Your task to perform on an android device: turn off priority inbox in the gmail app Image 0: 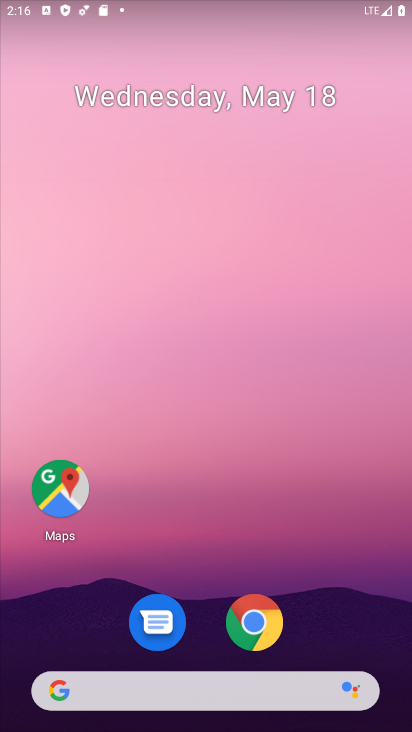
Step 0: drag from (201, 655) to (205, 301)
Your task to perform on an android device: turn off priority inbox in the gmail app Image 1: 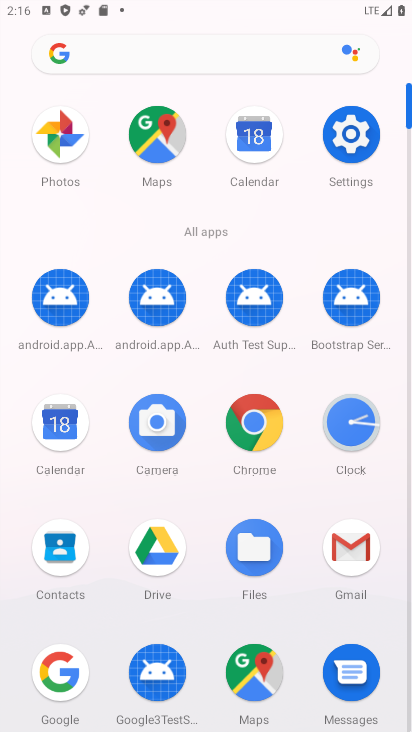
Step 1: click (332, 544)
Your task to perform on an android device: turn off priority inbox in the gmail app Image 2: 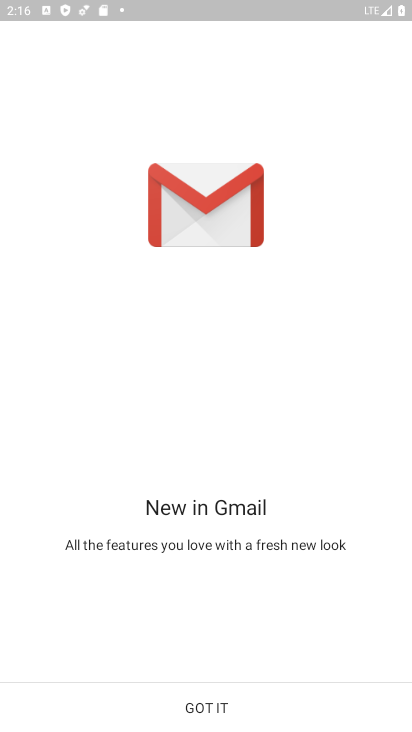
Step 2: click (237, 702)
Your task to perform on an android device: turn off priority inbox in the gmail app Image 3: 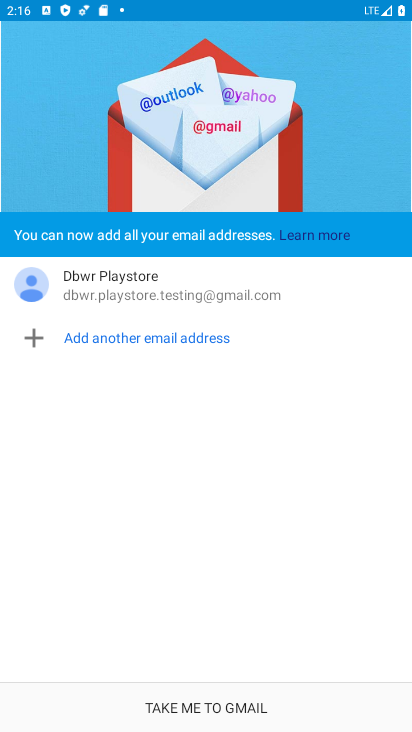
Step 3: click (244, 695)
Your task to perform on an android device: turn off priority inbox in the gmail app Image 4: 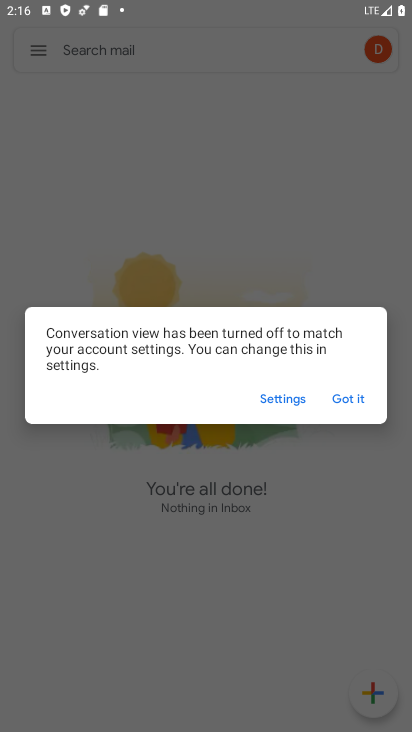
Step 4: click (338, 396)
Your task to perform on an android device: turn off priority inbox in the gmail app Image 5: 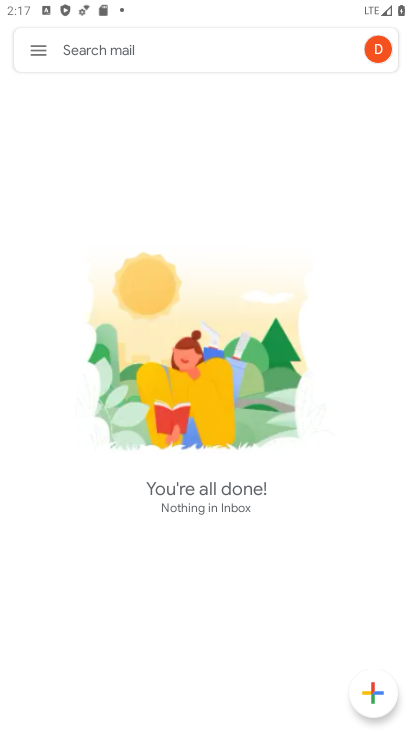
Step 5: click (31, 43)
Your task to perform on an android device: turn off priority inbox in the gmail app Image 6: 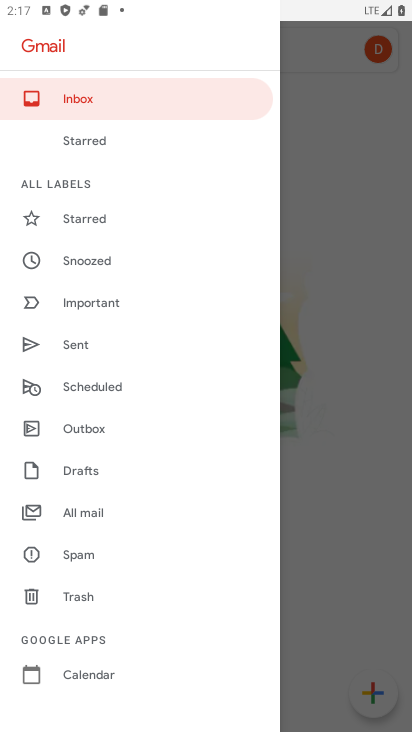
Step 6: drag from (119, 626) to (154, 382)
Your task to perform on an android device: turn off priority inbox in the gmail app Image 7: 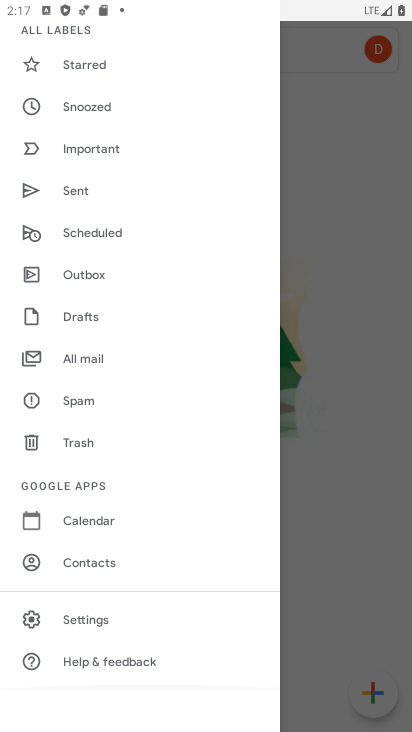
Step 7: click (96, 624)
Your task to perform on an android device: turn off priority inbox in the gmail app Image 8: 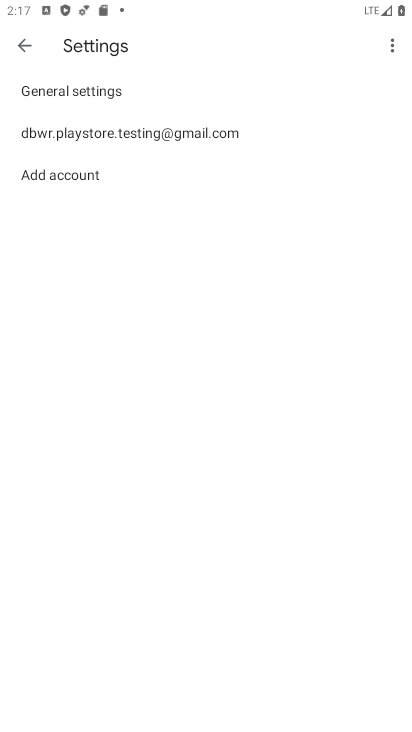
Step 8: click (124, 130)
Your task to perform on an android device: turn off priority inbox in the gmail app Image 9: 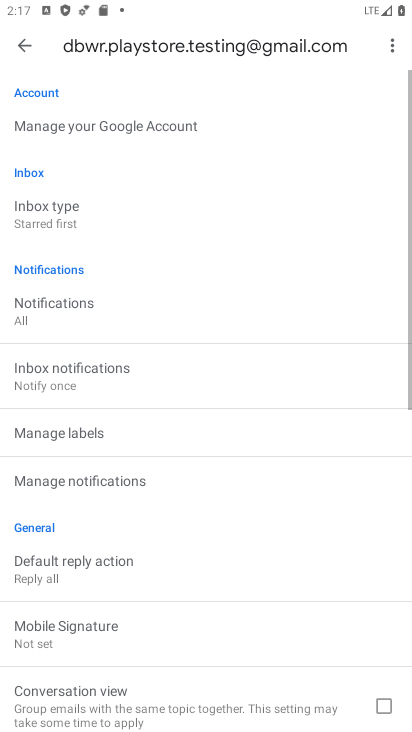
Step 9: click (101, 213)
Your task to perform on an android device: turn off priority inbox in the gmail app Image 10: 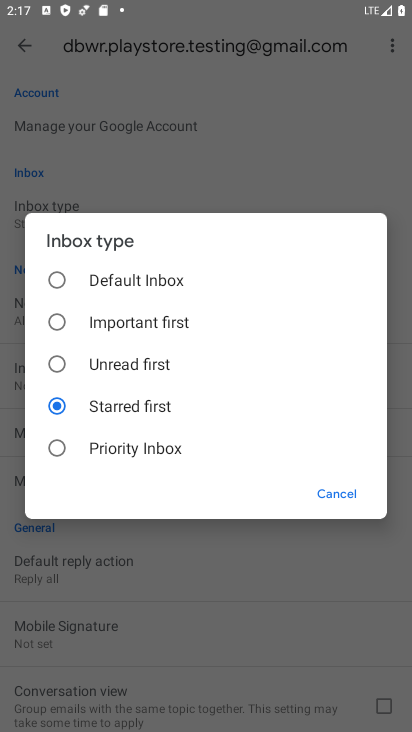
Step 10: click (164, 281)
Your task to perform on an android device: turn off priority inbox in the gmail app Image 11: 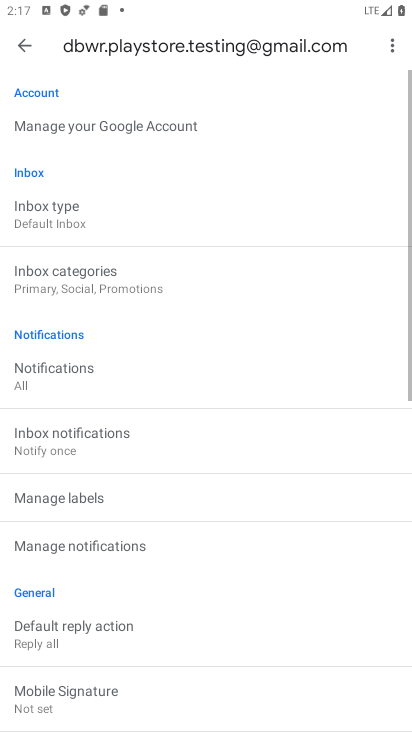
Step 11: task complete